Your task to perform on an android device: turn notification dots off Image 0: 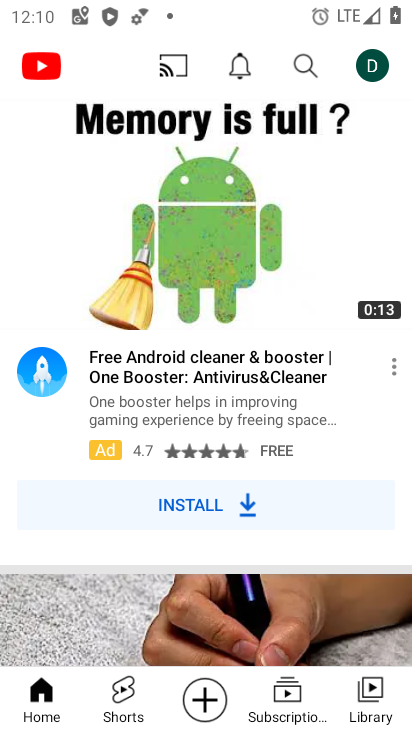
Step 0: press home button
Your task to perform on an android device: turn notification dots off Image 1: 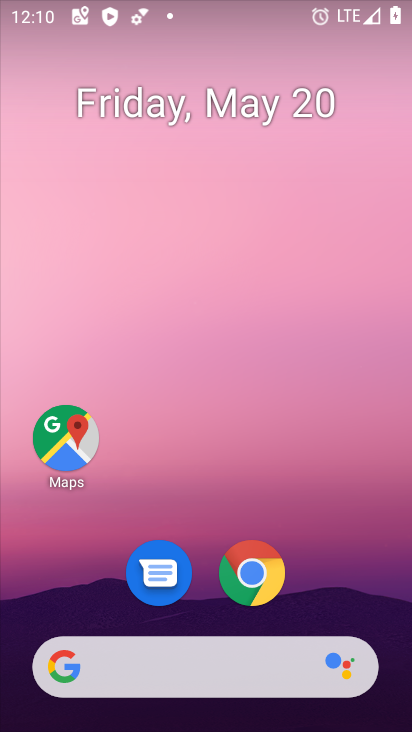
Step 1: drag from (223, 612) to (309, 100)
Your task to perform on an android device: turn notification dots off Image 2: 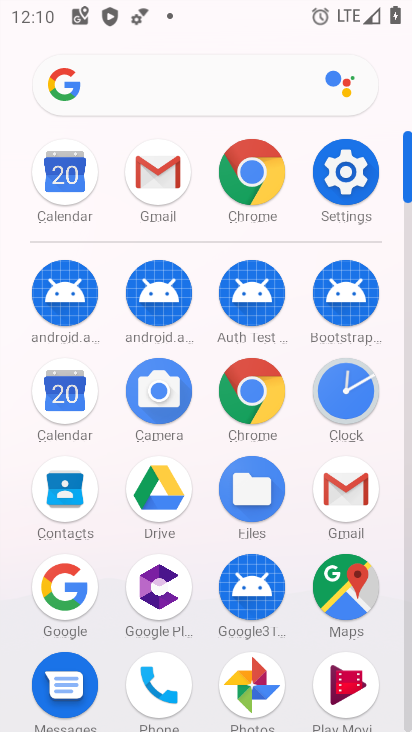
Step 2: click (351, 182)
Your task to perform on an android device: turn notification dots off Image 3: 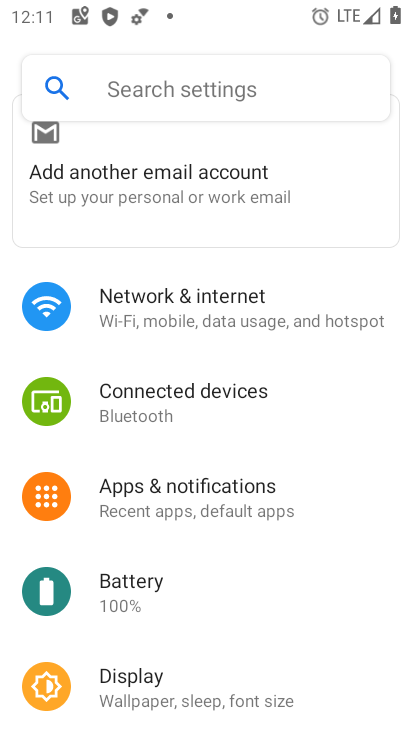
Step 3: click (206, 511)
Your task to perform on an android device: turn notification dots off Image 4: 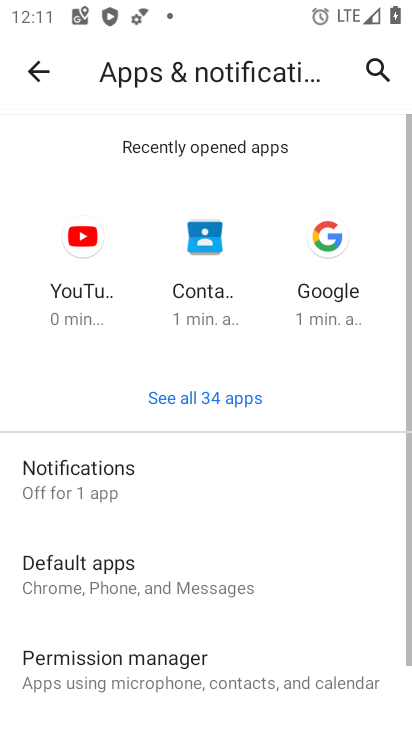
Step 4: click (214, 318)
Your task to perform on an android device: turn notification dots off Image 5: 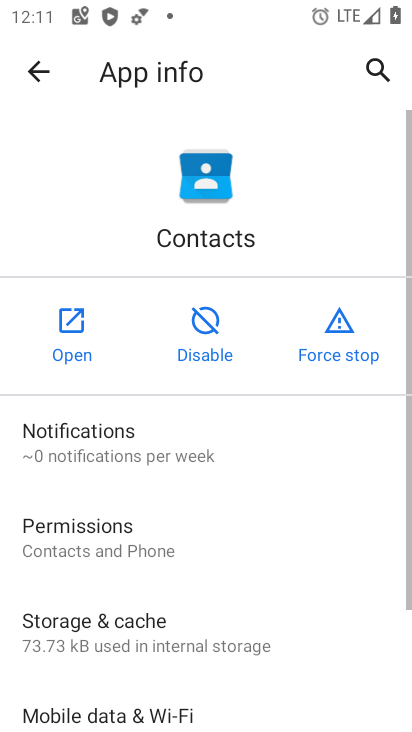
Step 5: drag from (181, 557) to (239, 234)
Your task to perform on an android device: turn notification dots off Image 6: 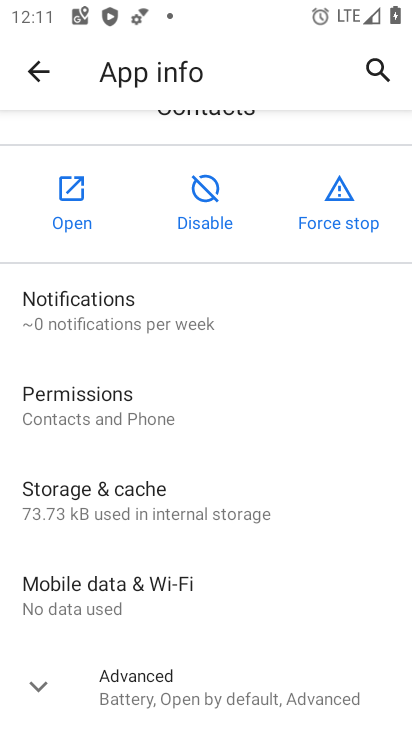
Step 6: click (45, 79)
Your task to perform on an android device: turn notification dots off Image 7: 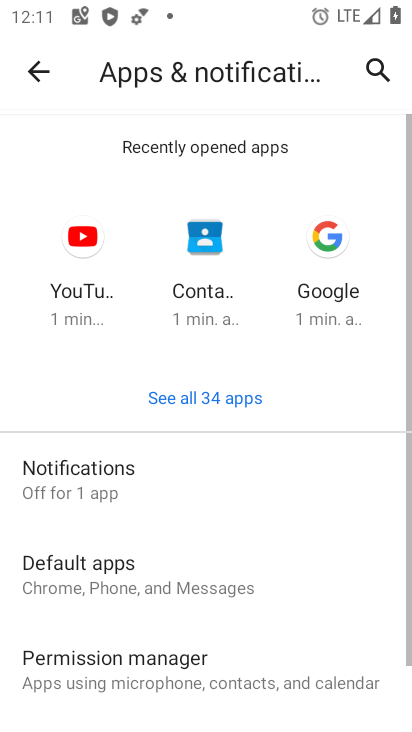
Step 7: click (135, 469)
Your task to perform on an android device: turn notification dots off Image 8: 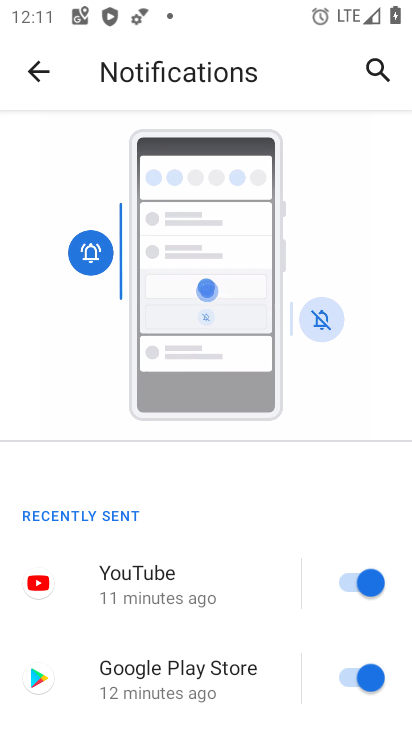
Step 8: drag from (162, 591) to (235, 282)
Your task to perform on an android device: turn notification dots off Image 9: 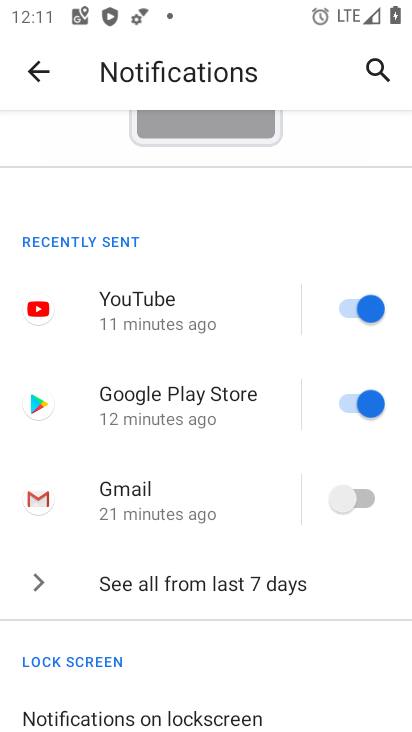
Step 9: drag from (233, 524) to (277, 273)
Your task to perform on an android device: turn notification dots off Image 10: 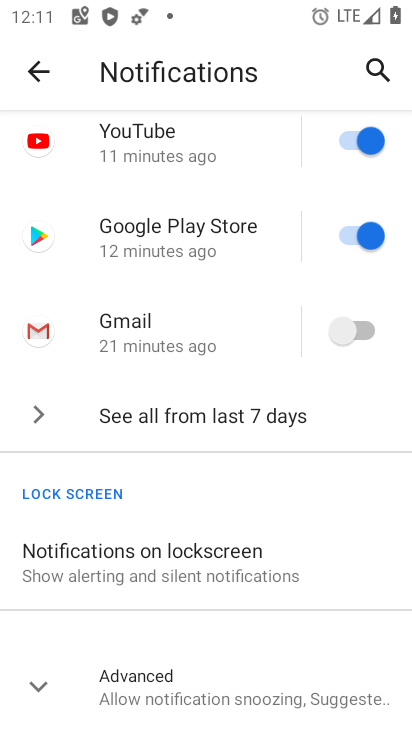
Step 10: click (210, 563)
Your task to perform on an android device: turn notification dots off Image 11: 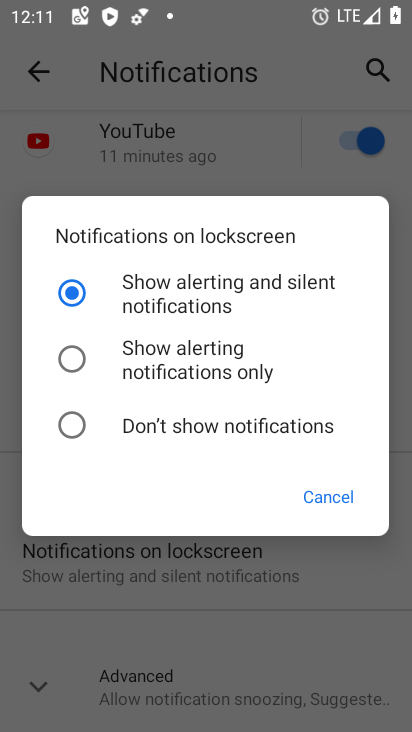
Step 11: click (200, 594)
Your task to perform on an android device: turn notification dots off Image 12: 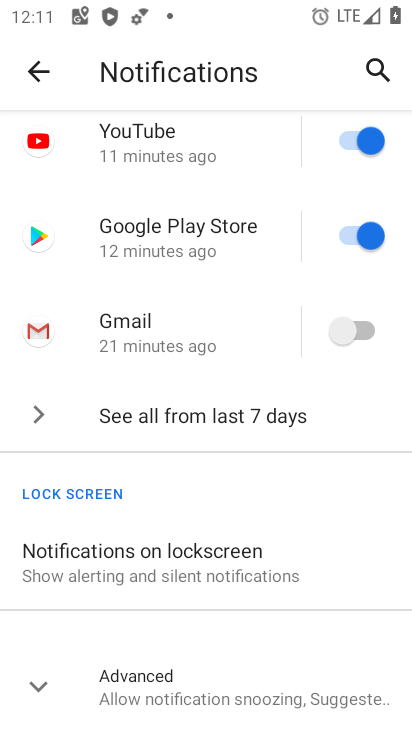
Step 12: drag from (188, 623) to (246, 365)
Your task to perform on an android device: turn notification dots off Image 13: 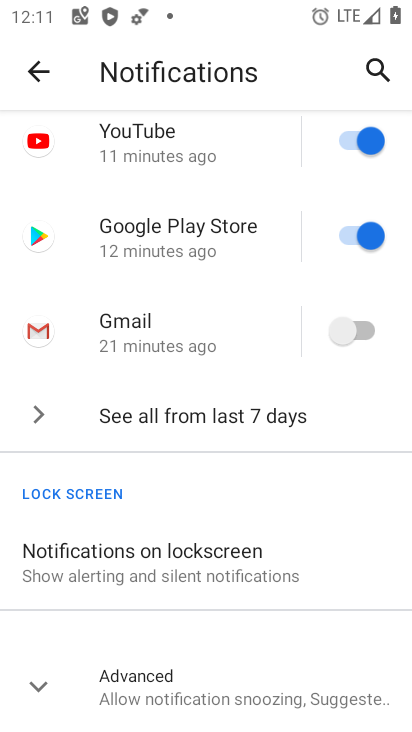
Step 13: click (130, 682)
Your task to perform on an android device: turn notification dots off Image 14: 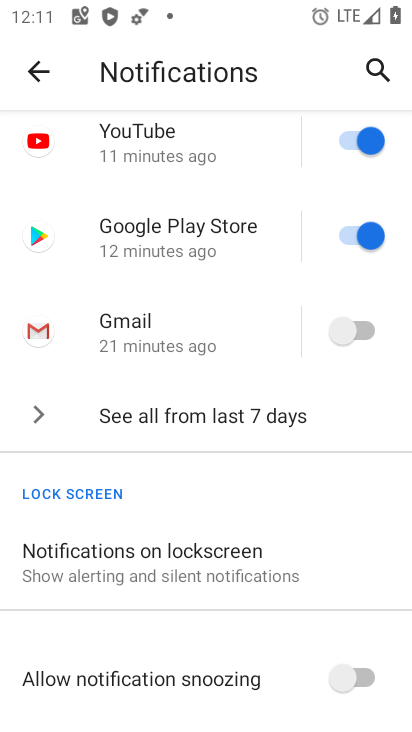
Step 14: drag from (166, 635) to (218, 340)
Your task to perform on an android device: turn notification dots off Image 15: 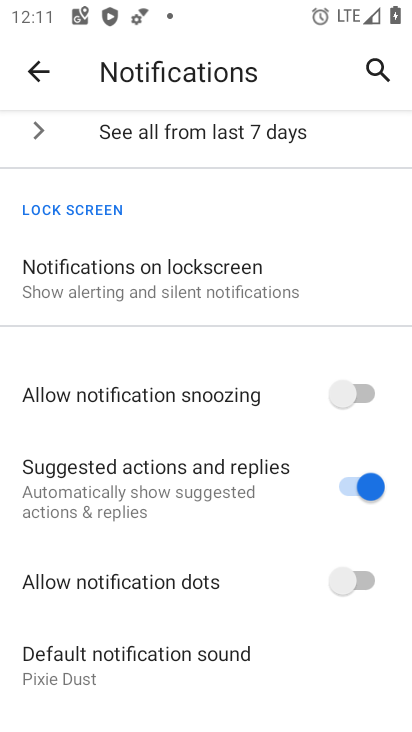
Step 15: click (376, 586)
Your task to perform on an android device: turn notification dots off Image 16: 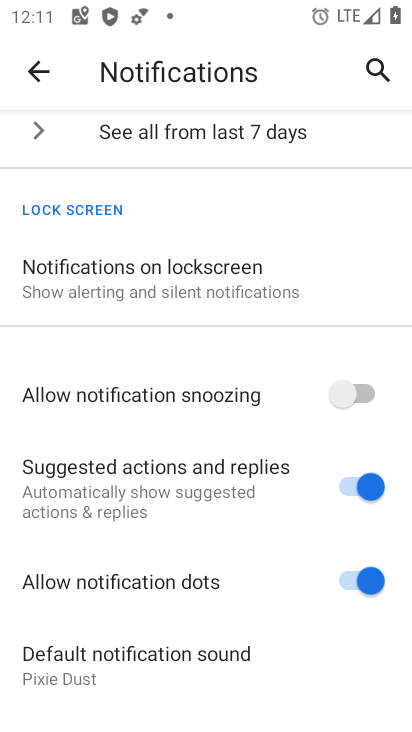
Step 16: task complete